Your task to perform on an android device: delete the emails in spam in the gmail app Image 0: 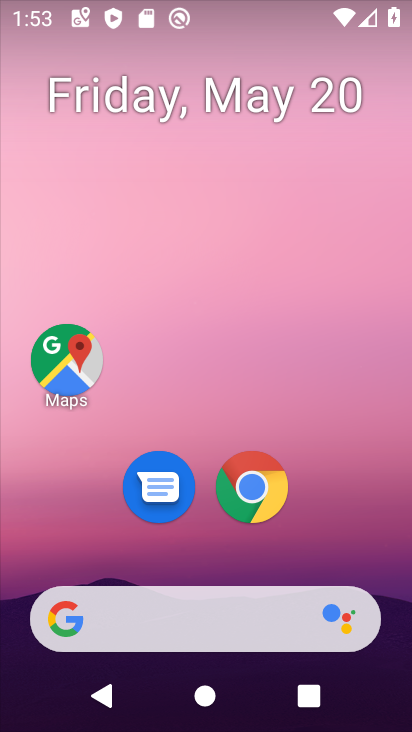
Step 0: drag from (337, 544) to (341, 0)
Your task to perform on an android device: delete the emails in spam in the gmail app Image 1: 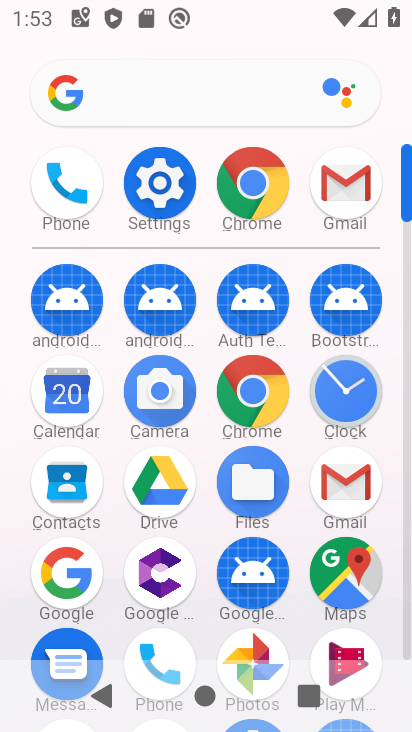
Step 1: click (370, 206)
Your task to perform on an android device: delete the emails in spam in the gmail app Image 2: 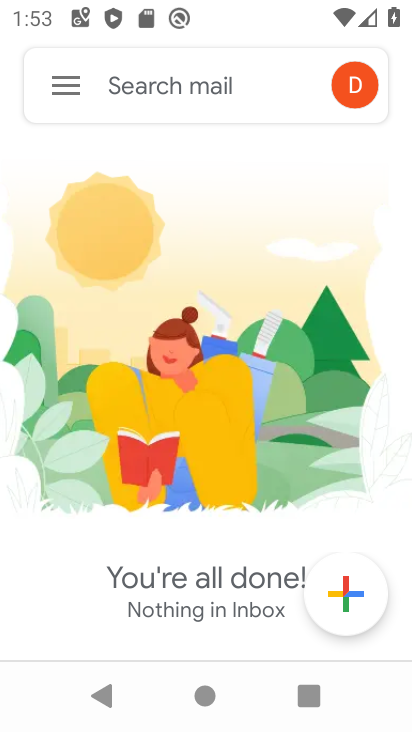
Step 2: click (56, 103)
Your task to perform on an android device: delete the emails in spam in the gmail app Image 3: 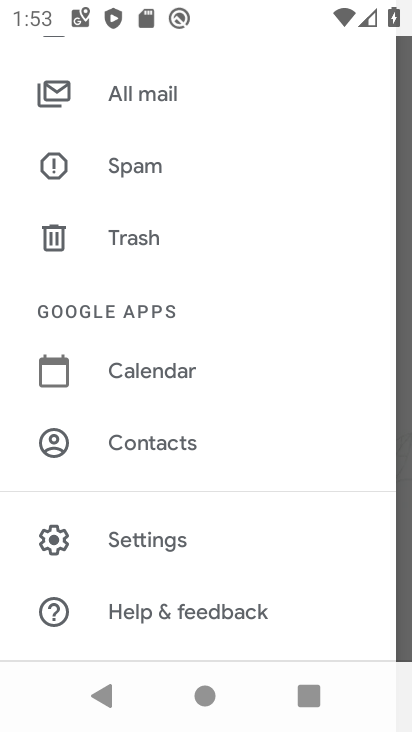
Step 3: click (105, 175)
Your task to perform on an android device: delete the emails in spam in the gmail app Image 4: 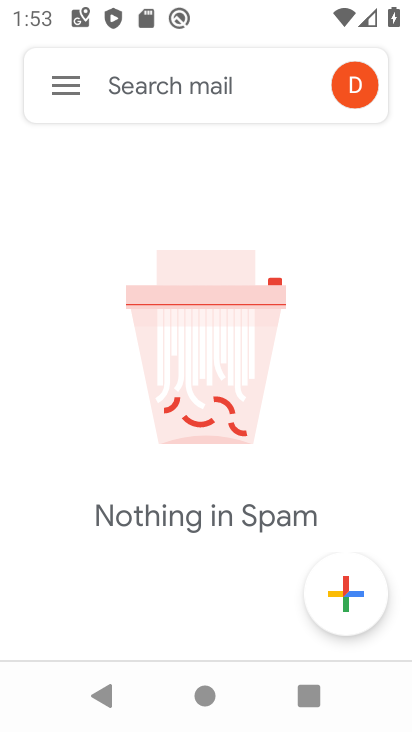
Step 4: task complete